Your task to perform on an android device: Go to Reddit.com Image 0: 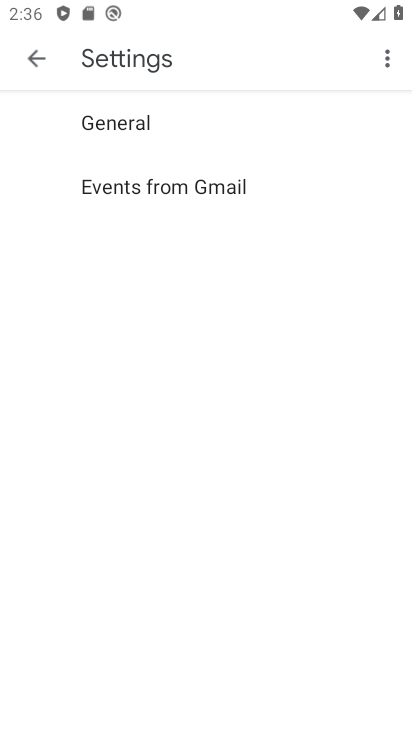
Step 0: press home button
Your task to perform on an android device: Go to Reddit.com Image 1: 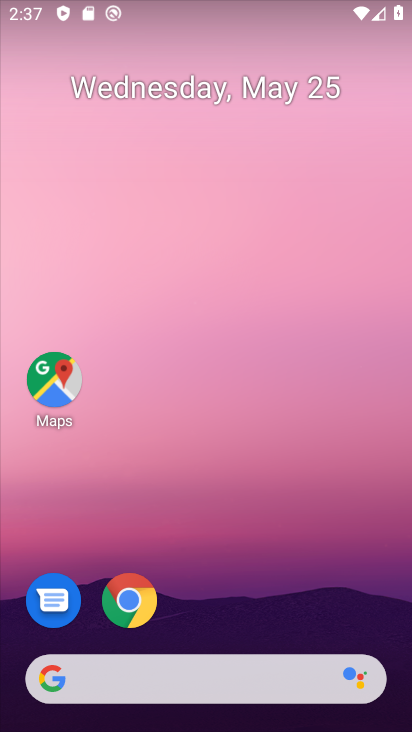
Step 1: click (129, 598)
Your task to perform on an android device: Go to Reddit.com Image 2: 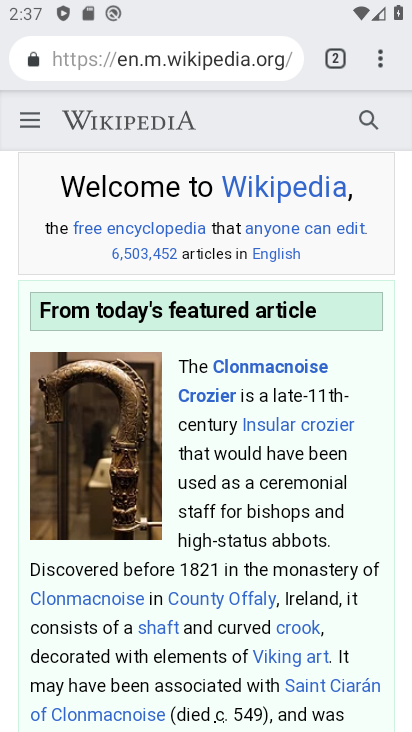
Step 2: click (200, 57)
Your task to perform on an android device: Go to Reddit.com Image 3: 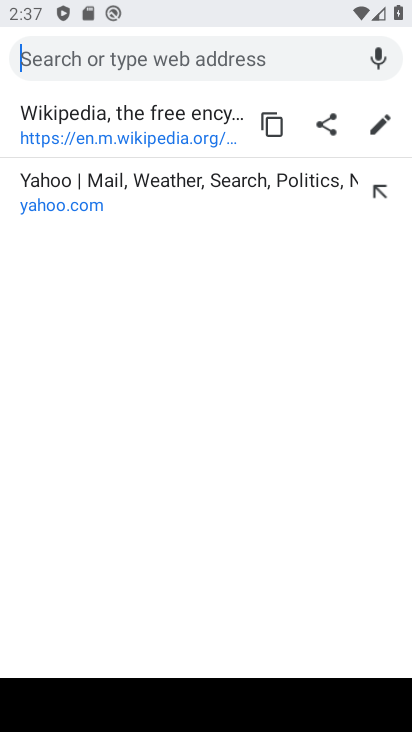
Step 3: click (192, 50)
Your task to perform on an android device: Go to Reddit.com Image 4: 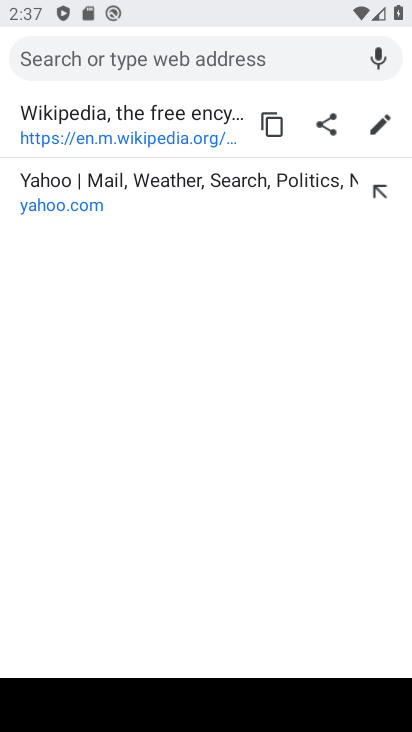
Step 4: type " Reddit.com"
Your task to perform on an android device: Go to Reddit.com Image 5: 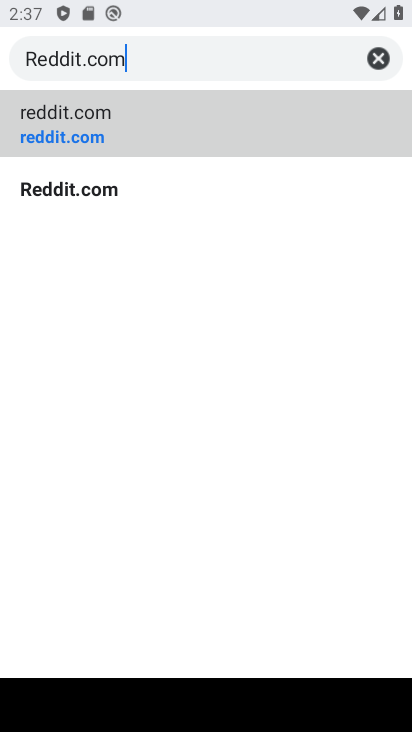
Step 5: type ""
Your task to perform on an android device: Go to Reddit.com Image 6: 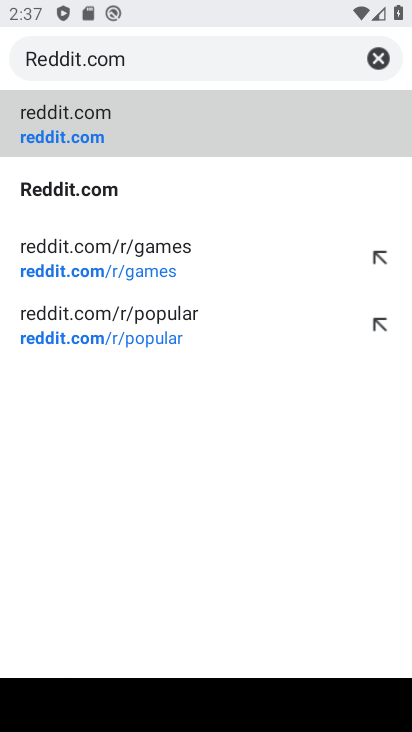
Step 6: click (188, 140)
Your task to perform on an android device: Go to Reddit.com Image 7: 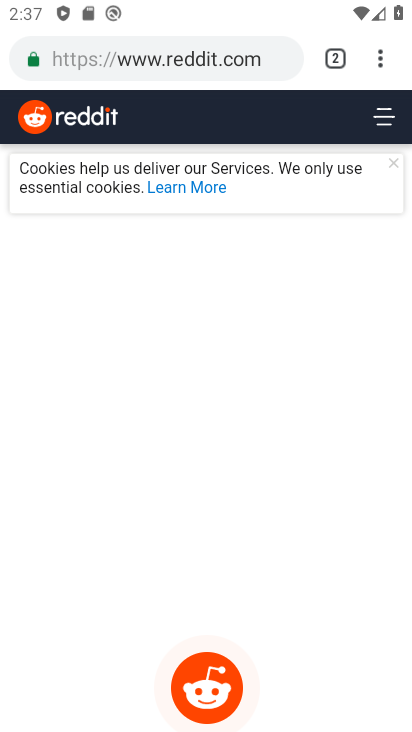
Step 7: task complete